Your task to perform on an android device: Open CNN.com Image 0: 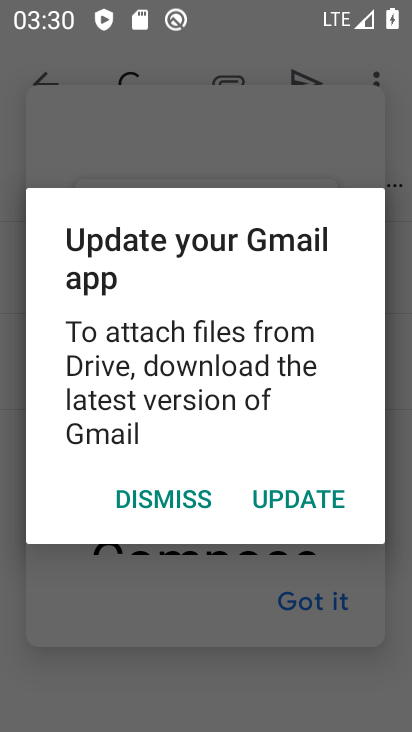
Step 0: press back button
Your task to perform on an android device: Open CNN.com Image 1: 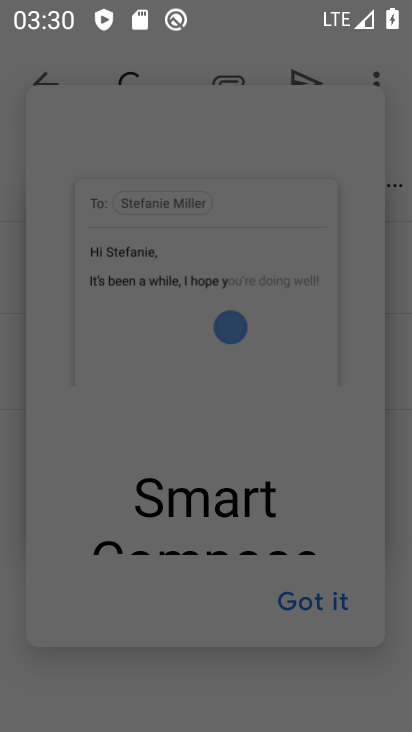
Step 1: press back button
Your task to perform on an android device: Open CNN.com Image 2: 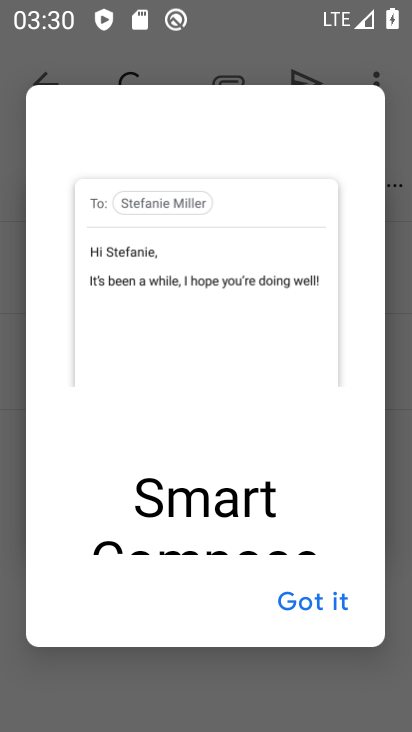
Step 2: press home button
Your task to perform on an android device: Open CNN.com Image 3: 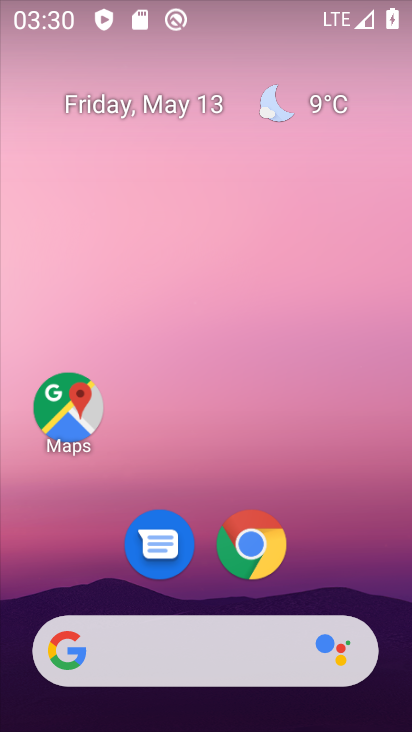
Step 3: drag from (358, 528) to (284, 7)
Your task to perform on an android device: Open CNN.com Image 4: 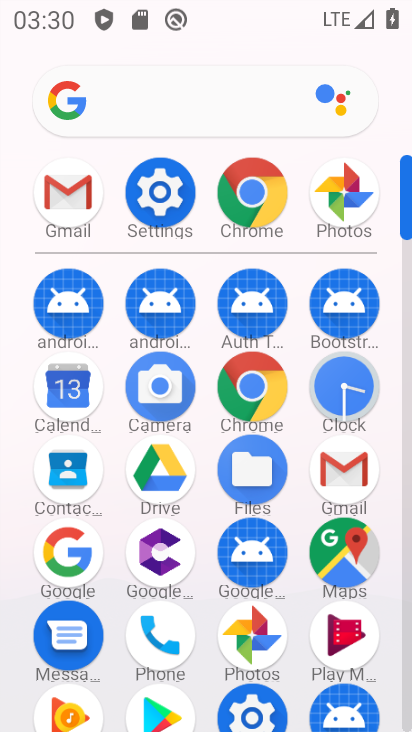
Step 4: click (251, 383)
Your task to perform on an android device: Open CNN.com Image 5: 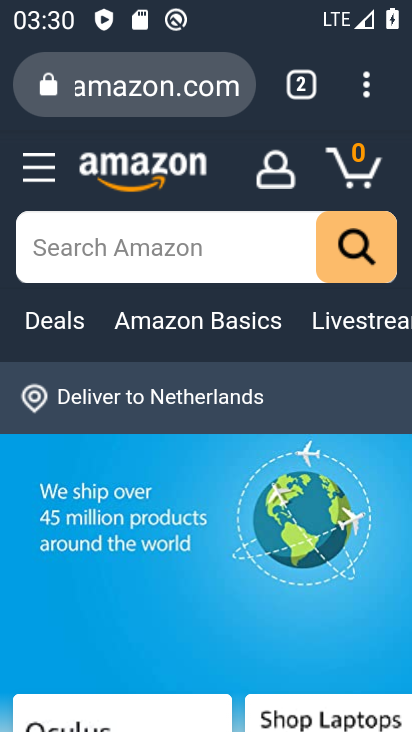
Step 5: click (149, 92)
Your task to perform on an android device: Open CNN.com Image 6: 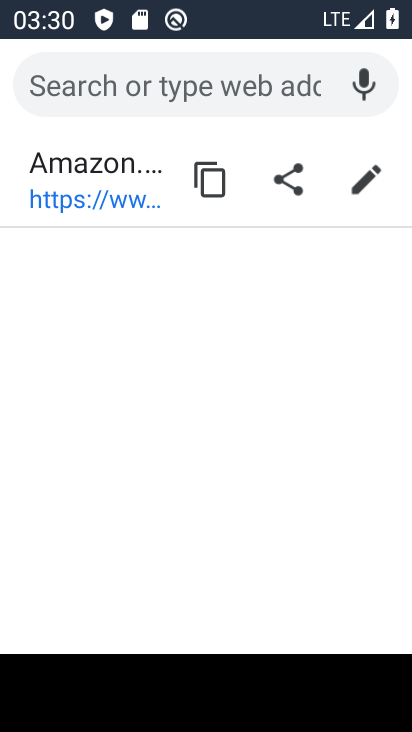
Step 6: type "CNN.com"
Your task to perform on an android device: Open CNN.com Image 7: 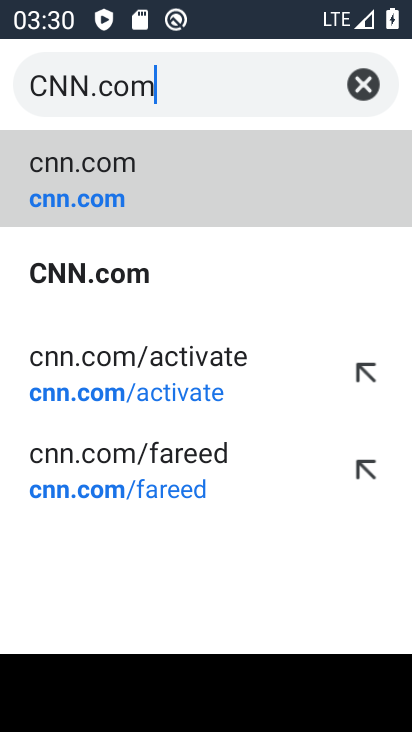
Step 7: click (126, 181)
Your task to perform on an android device: Open CNN.com Image 8: 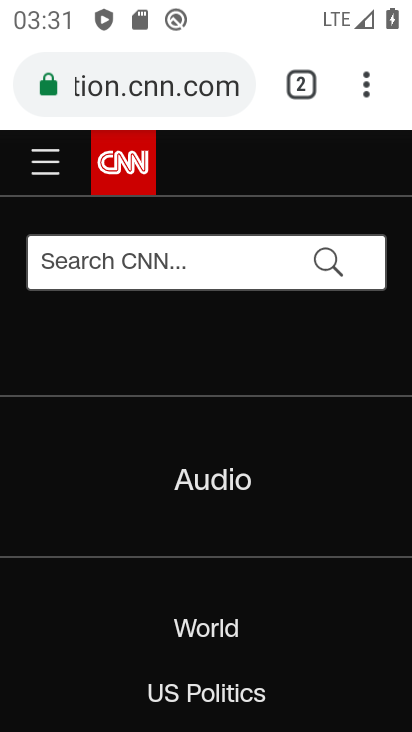
Step 8: task complete